Your task to perform on an android device: Search for pizza restaurants on Maps Image 0: 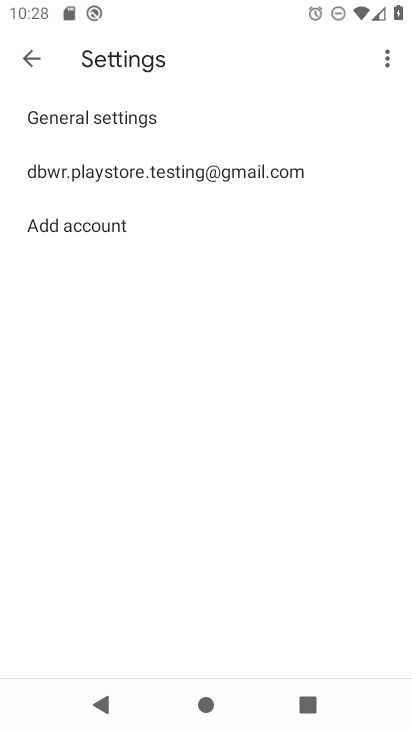
Step 0: press home button
Your task to perform on an android device: Search for pizza restaurants on Maps Image 1: 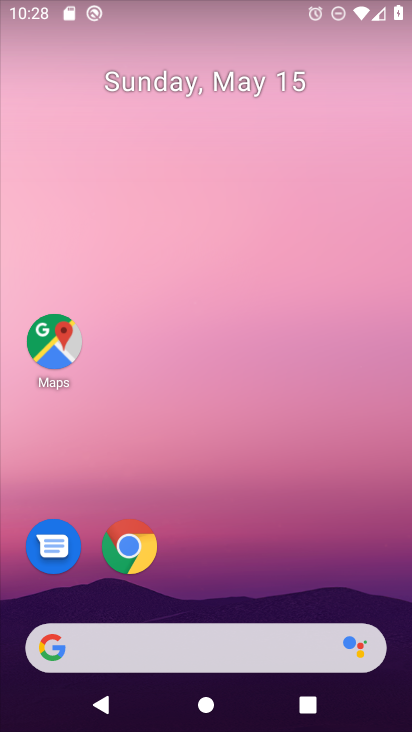
Step 1: click (55, 344)
Your task to perform on an android device: Search for pizza restaurants on Maps Image 2: 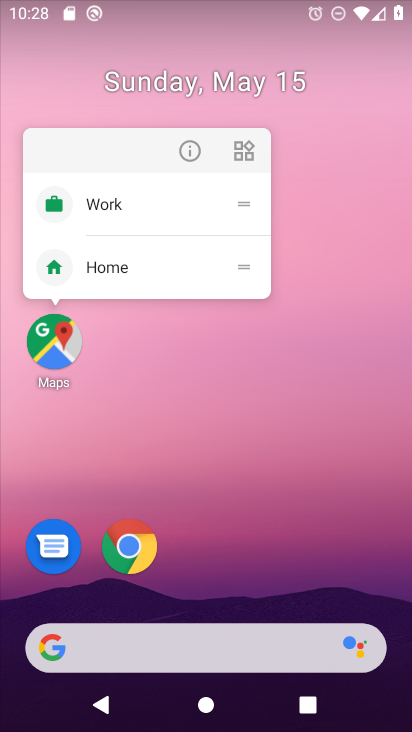
Step 2: click (55, 344)
Your task to perform on an android device: Search for pizza restaurants on Maps Image 3: 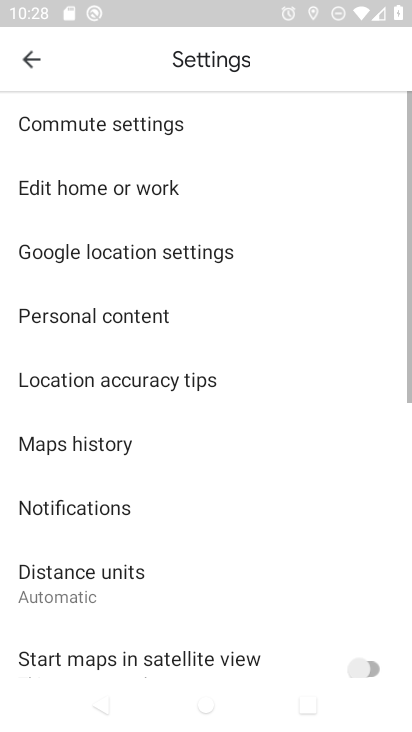
Step 3: click (31, 66)
Your task to perform on an android device: Search for pizza restaurants on Maps Image 4: 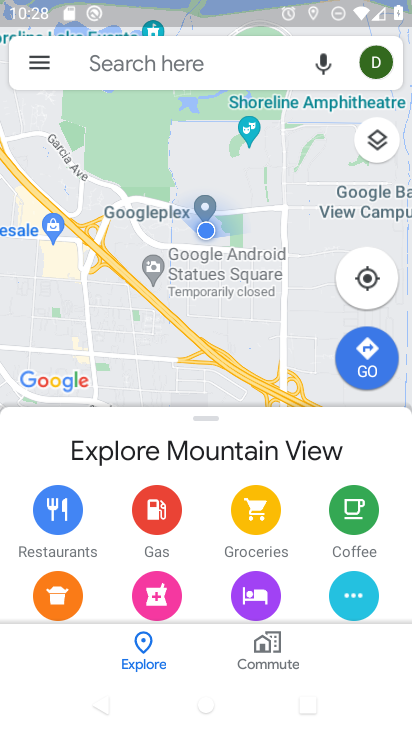
Step 4: click (178, 61)
Your task to perform on an android device: Search for pizza restaurants on Maps Image 5: 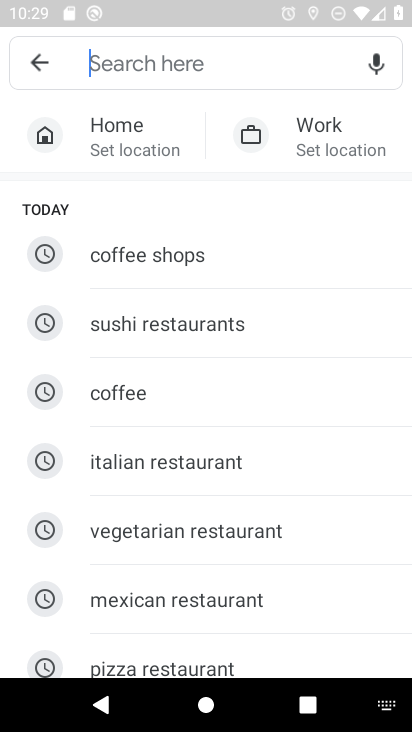
Step 5: type "pizza restaurants"
Your task to perform on an android device: Search for pizza restaurants on Maps Image 6: 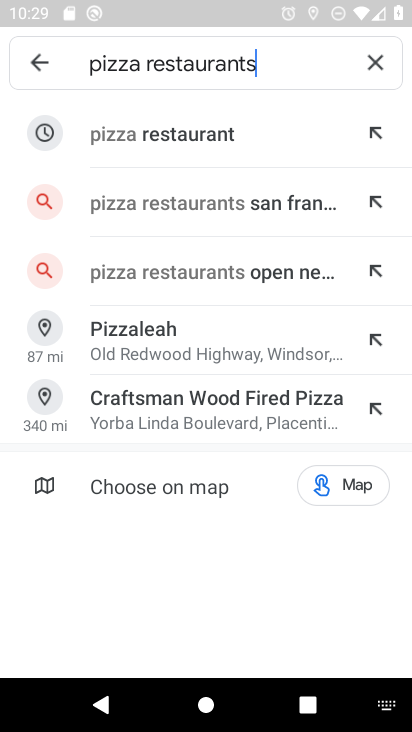
Step 6: press enter
Your task to perform on an android device: Search for pizza restaurants on Maps Image 7: 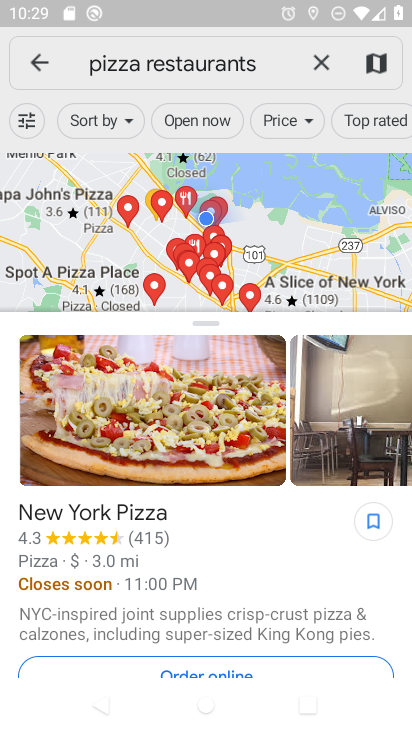
Step 7: task complete